Your task to perform on an android device: toggle pop-ups in chrome Image 0: 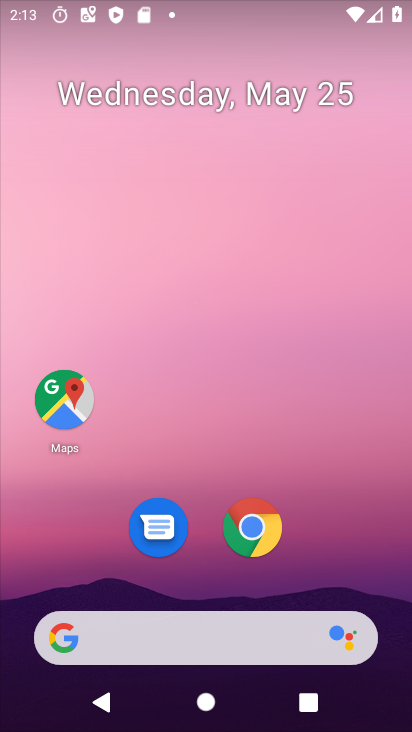
Step 0: drag from (227, 582) to (234, 99)
Your task to perform on an android device: toggle pop-ups in chrome Image 1: 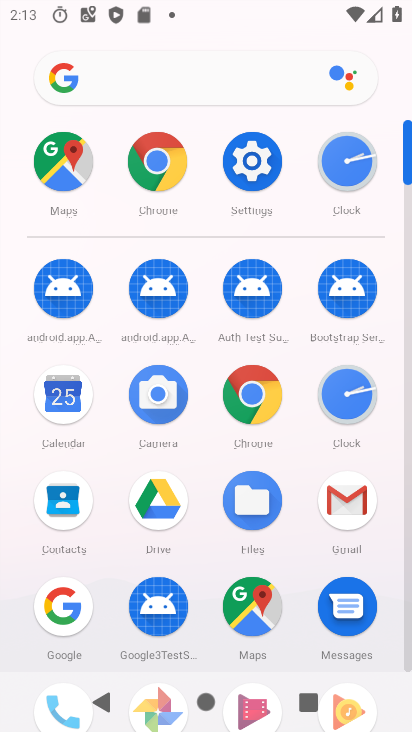
Step 1: click (247, 386)
Your task to perform on an android device: toggle pop-ups in chrome Image 2: 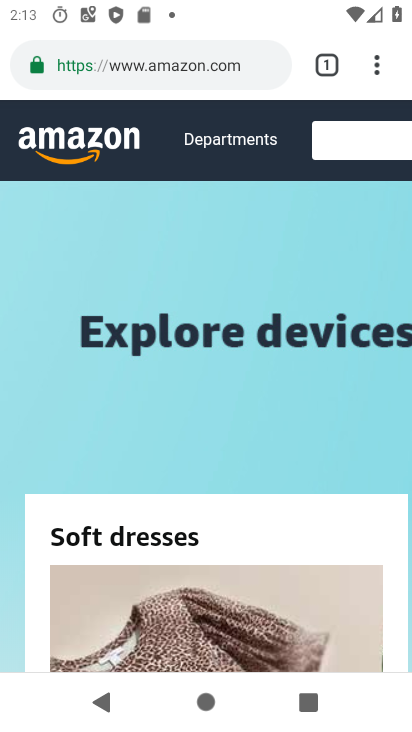
Step 2: drag from (205, 543) to (247, 187)
Your task to perform on an android device: toggle pop-ups in chrome Image 3: 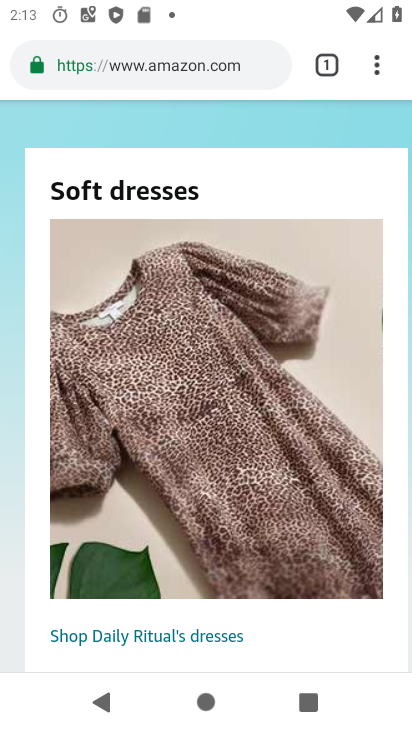
Step 3: click (372, 70)
Your task to perform on an android device: toggle pop-ups in chrome Image 4: 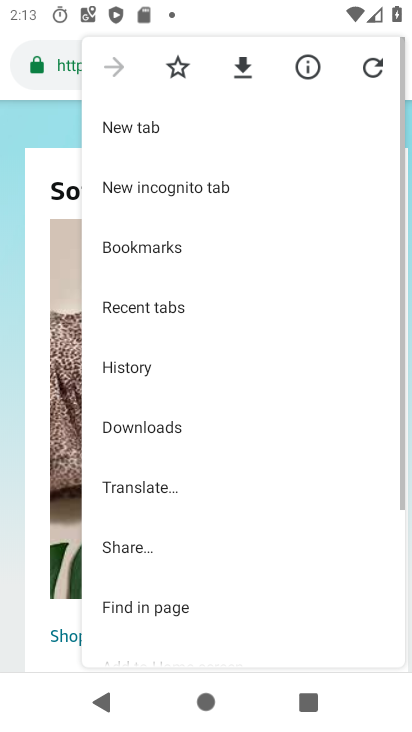
Step 4: drag from (258, 511) to (317, 65)
Your task to perform on an android device: toggle pop-ups in chrome Image 5: 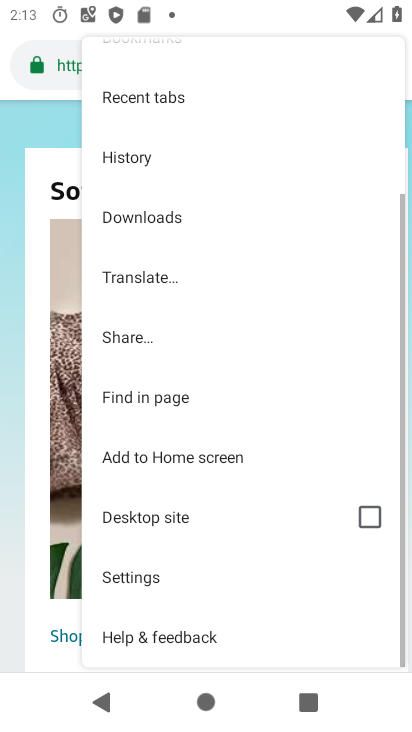
Step 5: click (135, 576)
Your task to perform on an android device: toggle pop-ups in chrome Image 6: 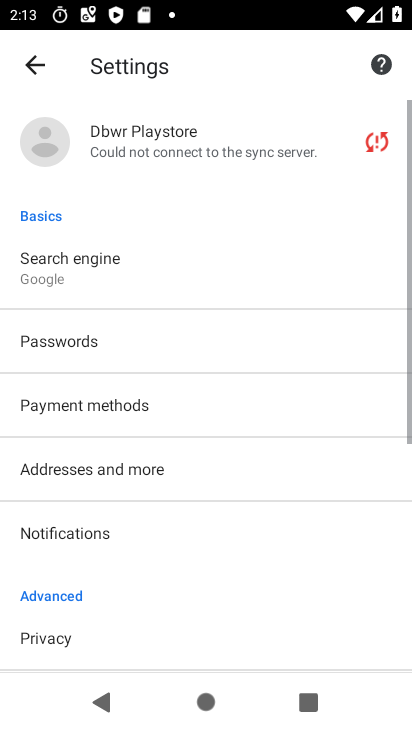
Step 6: drag from (166, 539) to (298, 70)
Your task to perform on an android device: toggle pop-ups in chrome Image 7: 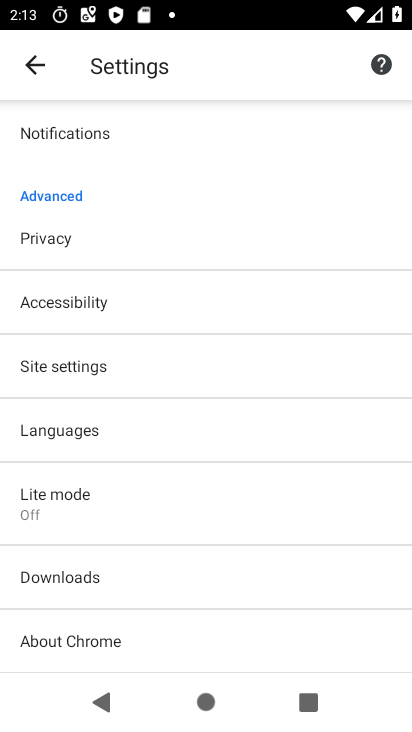
Step 7: click (57, 372)
Your task to perform on an android device: toggle pop-ups in chrome Image 8: 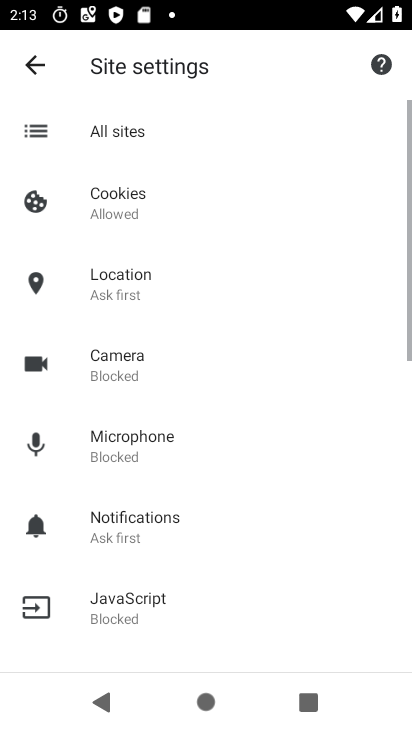
Step 8: drag from (250, 665) to (329, 344)
Your task to perform on an android device: toggle pop-ups in chrome Image 9: 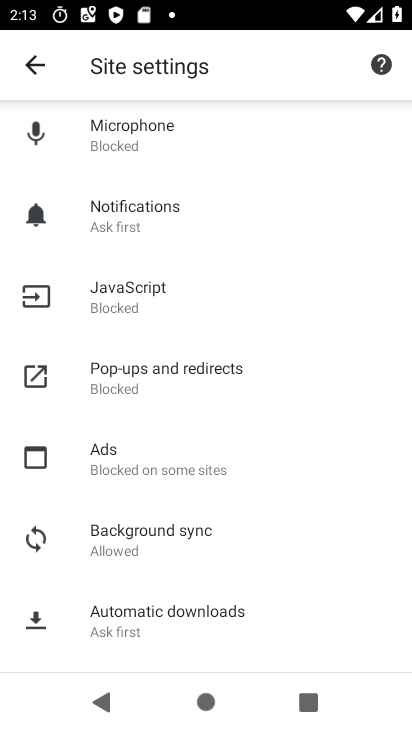
Step 9: click (135, 387)
Your task to perform on an android device: toggle pop-ups in chrome Image 10: 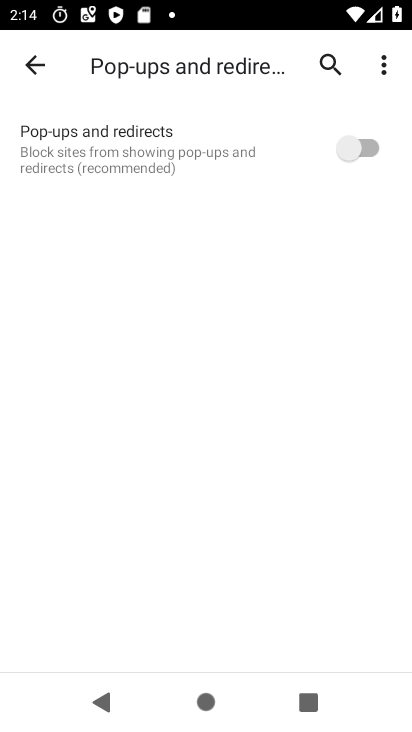
Step 10: click (341, 162)
Your task to perform on an android device: toggle pop-ups in chrome Image 11: 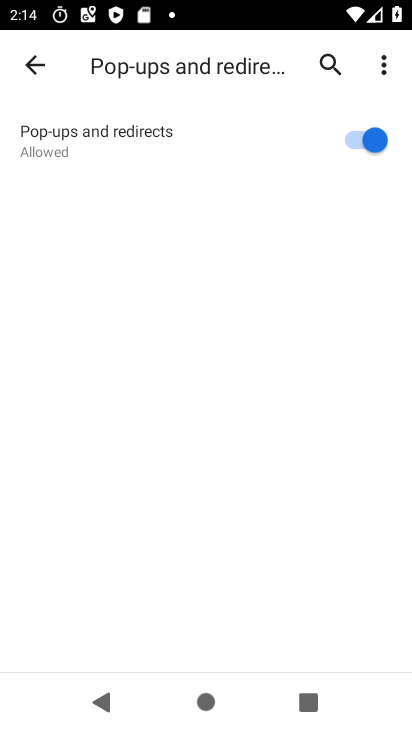
Step 11: task complete